Your task to perform on an android device: Toggle the flashlight Image 0: 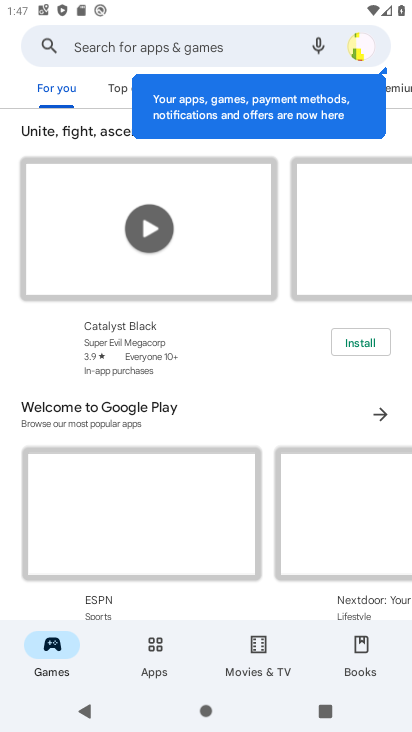
Step 0: press home button
Your task to perform on an android device: Toggle the flashlight Image 1: 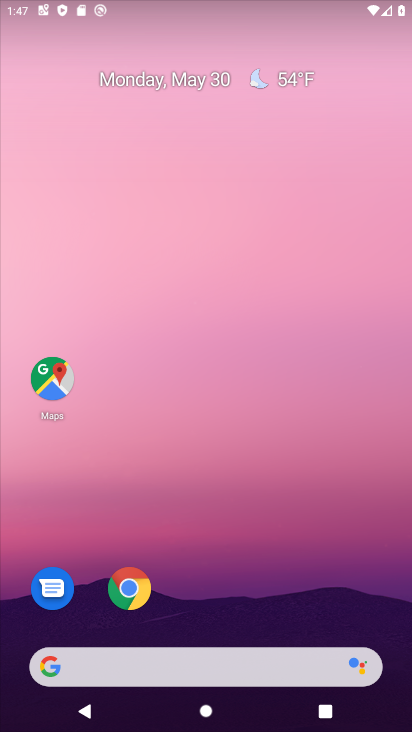
Step 1: drag from (216, 595) to (225, 34)
Your task to perform on an android device: Toggle the flashlight Image 2: 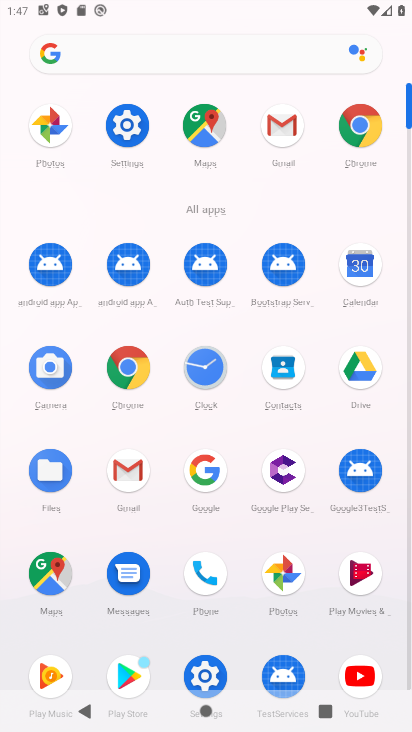
Step 2: click (119, 127)
Your task to perform on an android device: Toggle the flashlight Image 3: 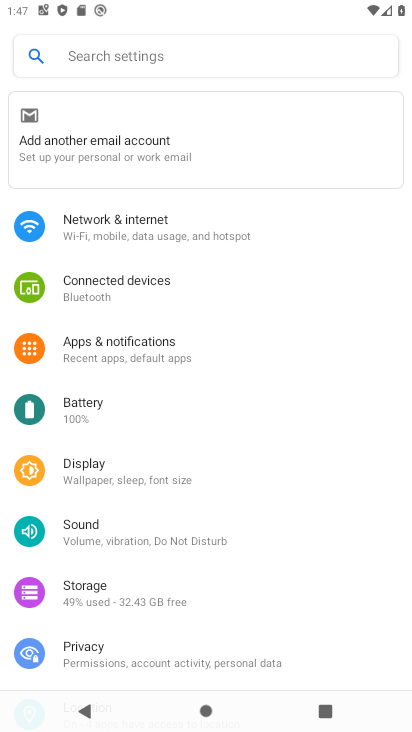
Step 3: click (194, 45)
Your task to perform on an android device: Toggle the flashlight Image 4: 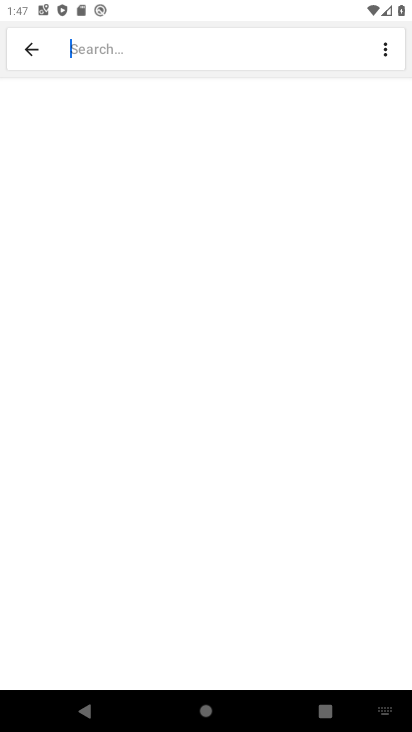
Step 4: type "flash"
Your task to perform on an android device: Toggle the flashlight Image 5: 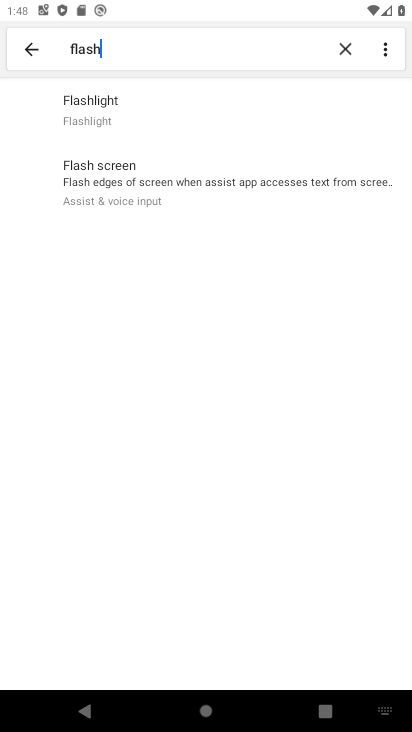
Step 5: task complete